Your task to perform on an android device: open a bookmark in the chrome app Image 0: 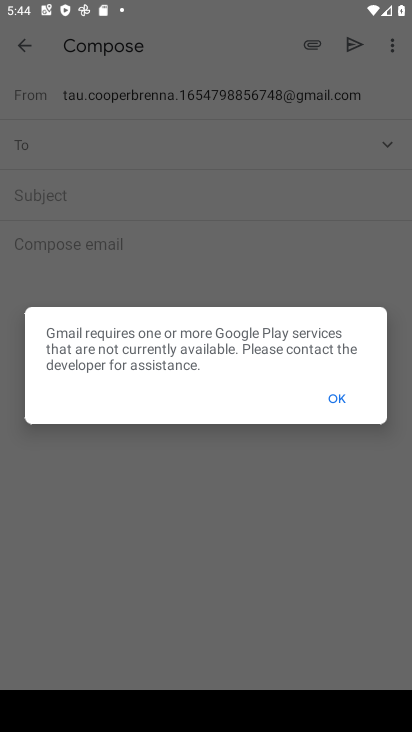
Step 0: press home button
Your task to perform on an android device: open a bookmark in the chrome app Image 1: 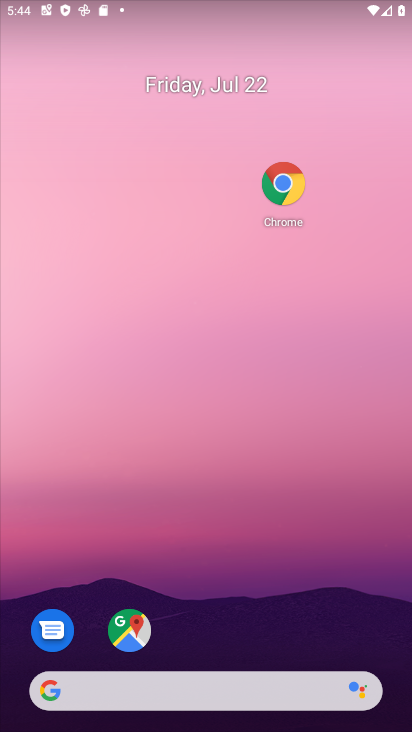
Step 1: click (282, 183)
Your task to perform on an android device: open a bookmark in the chrome app Image 2: 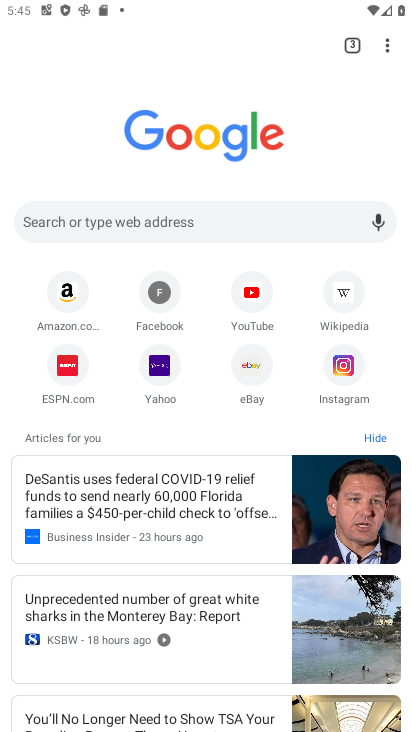
Step 2: click (384, 49)
Your task to perform on an android device: open a bookmark in the chrome app Image 3: 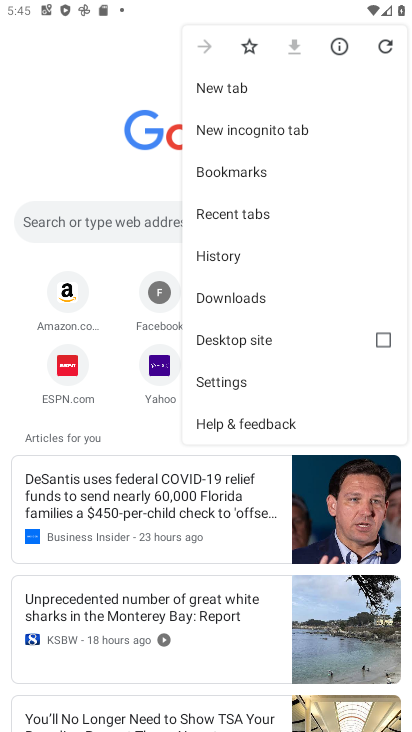
Step 3: click (227, 163)
Your task to perform on an android device: open a bookmark in the chrome app Image 4: 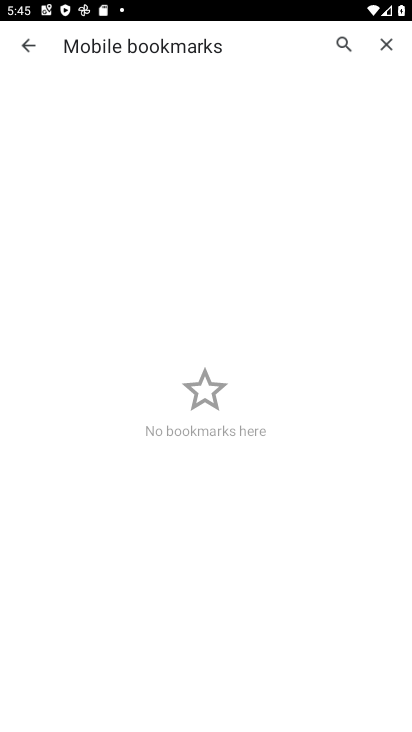
Step 4: task complete